Your task to perform on an android device: choose inbox layout in the gmail app Image 0: 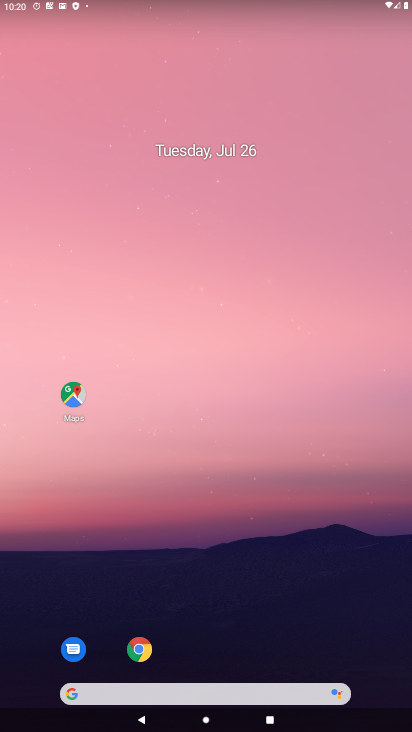
Step 0: drag from (182, 651) to (252, 191)
Your task to perform on an android device: choose inbox layout in the gmail app Image 1: 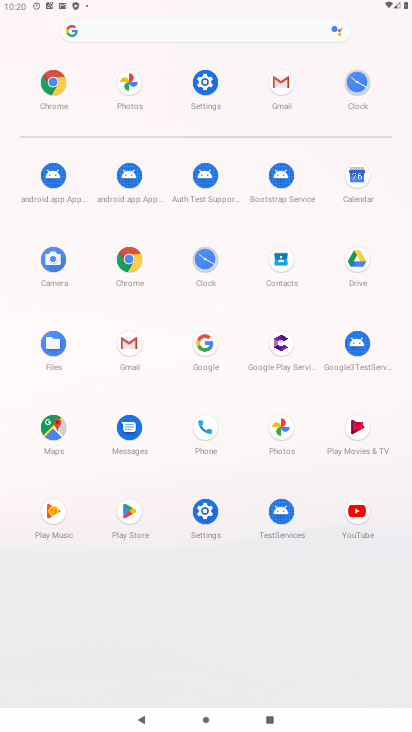
Step 1: click (123, 344)
Your task to perform on an android device: choose inbox layout in the gmail app Image 2: 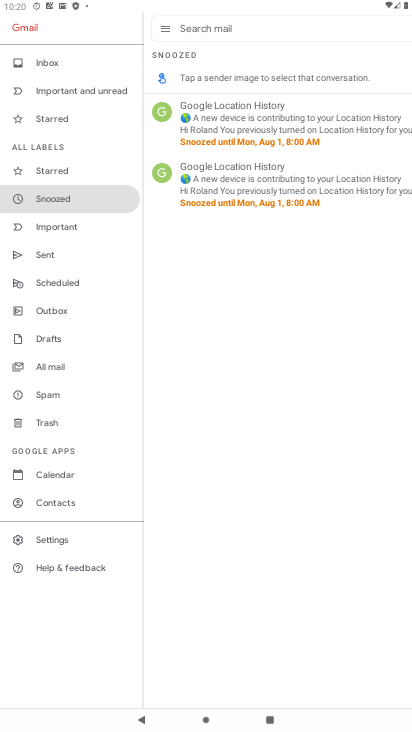
Step 2: click (69, 58)
Your task to perform on an android device: choose inbox layout in the gmail app Image 3: 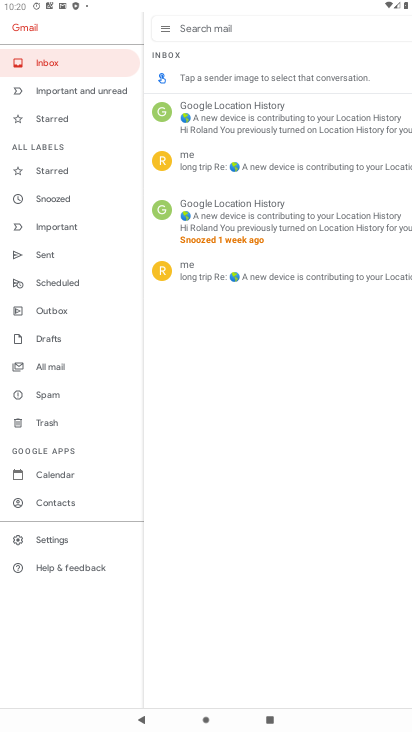
Step 3: task complete